Your task to perform on an android device: What's the weather? Image 0: 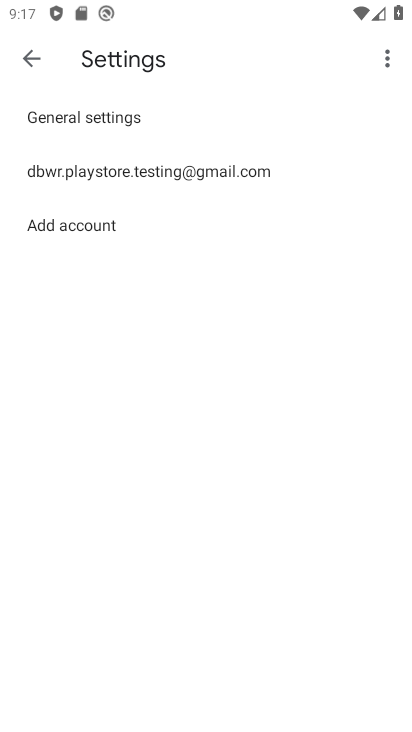
Step 0: press home button
Your task to perform on an android device: What's the weather? Image 1: 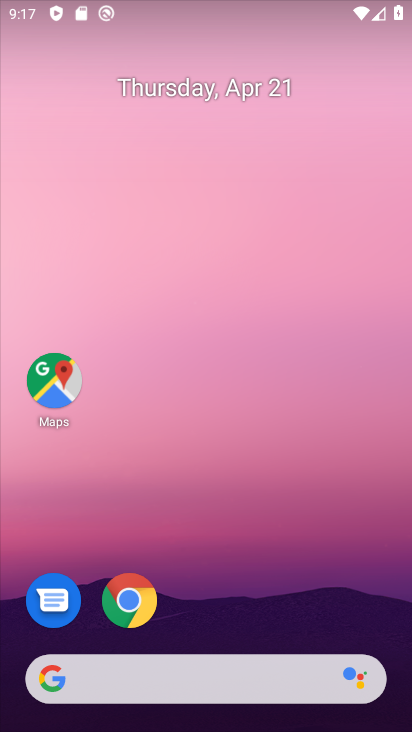
Step 1: drag from (229, 614) to (226, 143)
Your task to perform on an android device: What's the weather? Image 2: 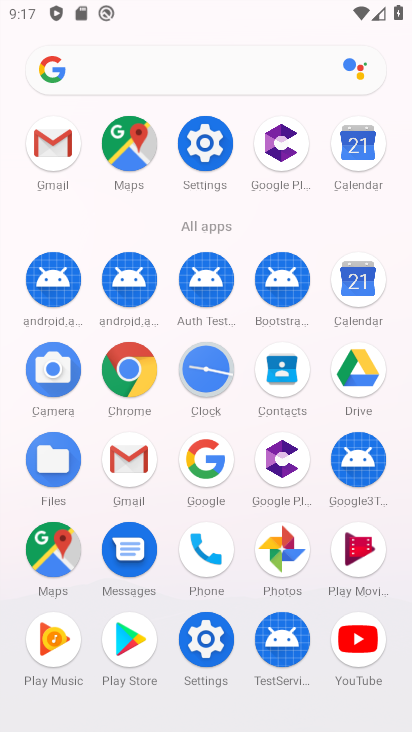
Step 2: click (196, 460)
Your task to perform on an android device: What's the weather? Image 3: 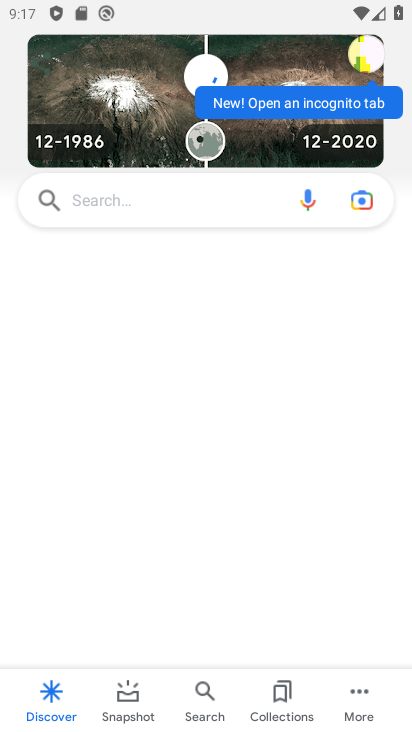
Step 3: click (178, 203)
Your task to perform on an android device: What's the weather? Image 4: 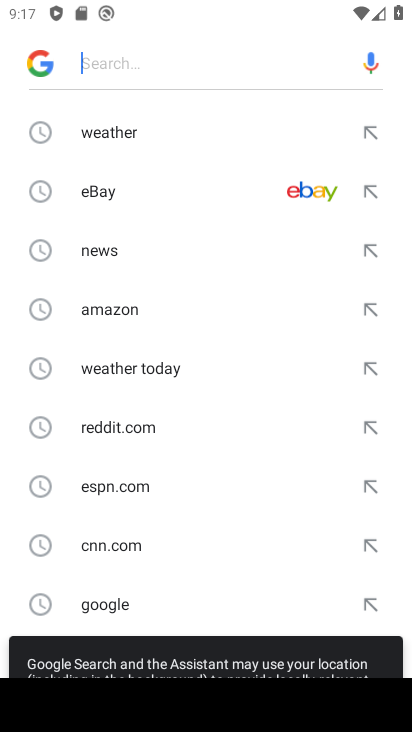
Step 4: click (145, 139)
Your task to perform on an android device: What's the weather? Image 5: 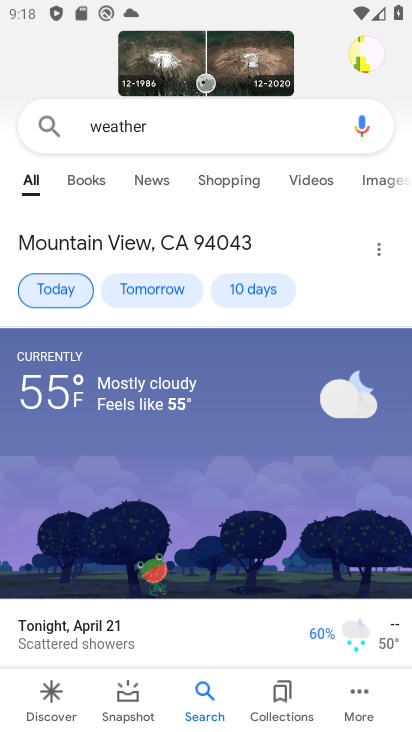
Step 5: task complete